Your task to perform on an android device: open a bookmark in the chrome app Image 0: 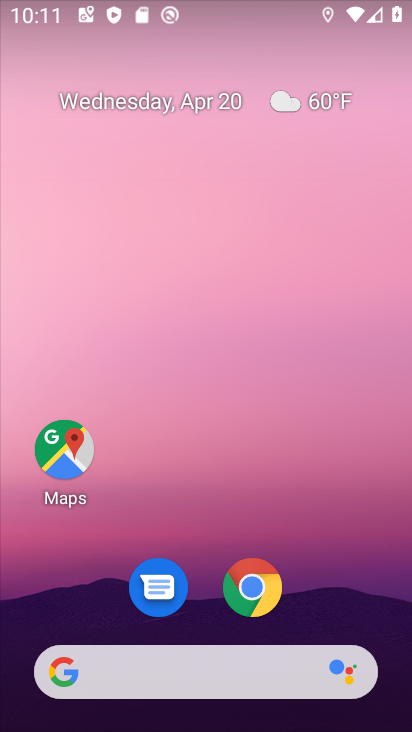
Step 0: click (268, 618)
Your task to perform on an android device: open a bookmark in the chrome app Image 1: 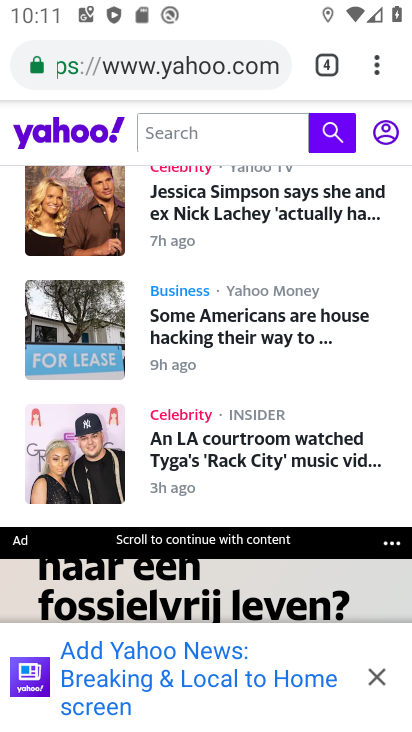
Step 1: task complete